Your task to perform on an android device: open device folders in google photos Image 0: 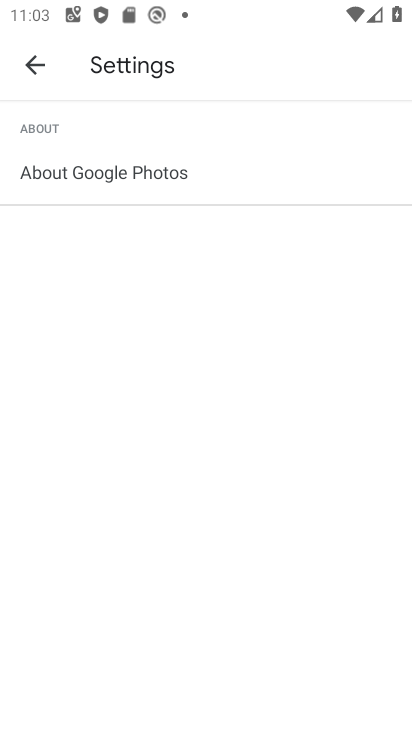
Step 0: press back button
Your task to perform on an android device: open device folders in google photos Image 1: 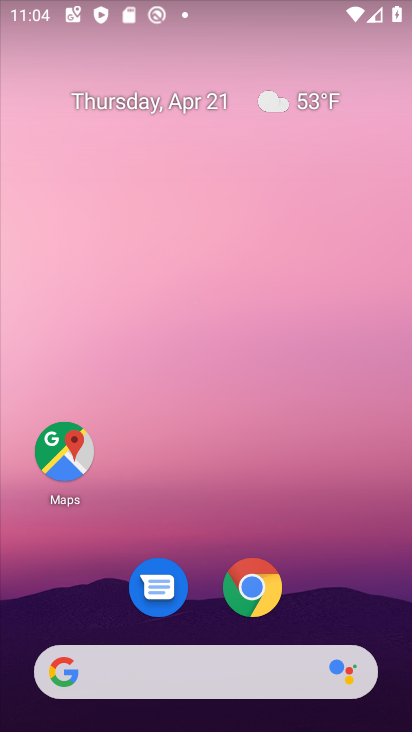
Step 1: drag from (133, 567) to (185, 72)
Your task to perform on an android device: open device folders in google photos Image 2: 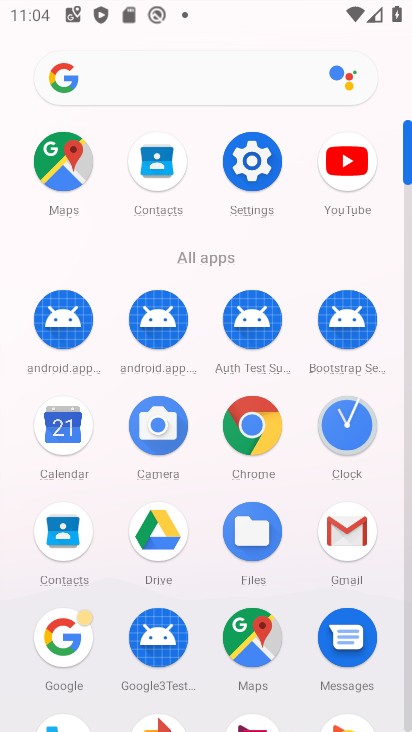
Step 2: drag from (233, 634) to (308, 163)
Your task to perform on an android device: open device folders in google photos Image 3: 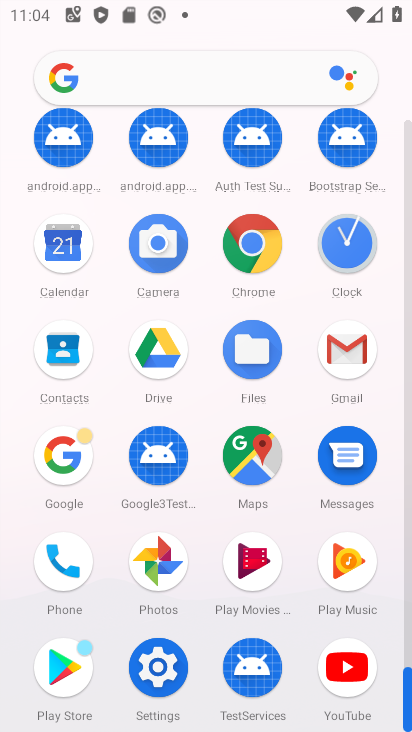
Step 3: click (157, 560)
Your task to perform on an android device: open device folders in google photos Image 4: 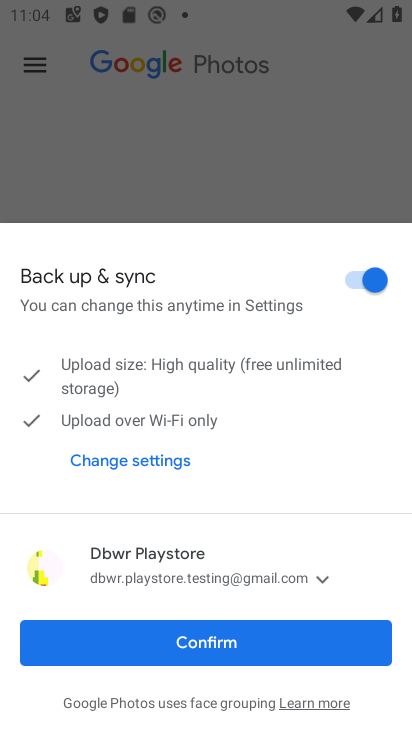
Step 4: click (25, 67)
Your task to perform on an android device: open device folders in google photos Image 5: 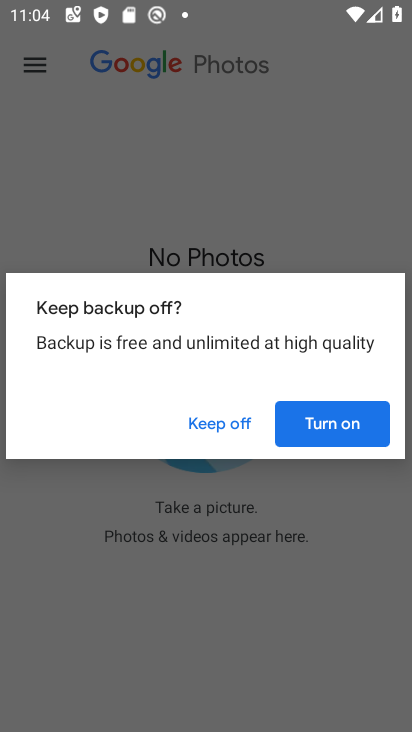
Step 5: click (230, 422)
Your task to perform on an android device: open device folders in google photos Image 6: 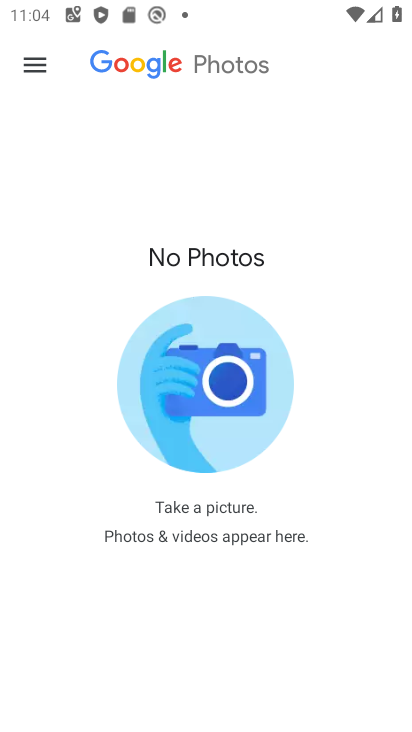
Step 6: click (31, 62)
Your task to perform on an android device: open device folders in google photos Image 7: 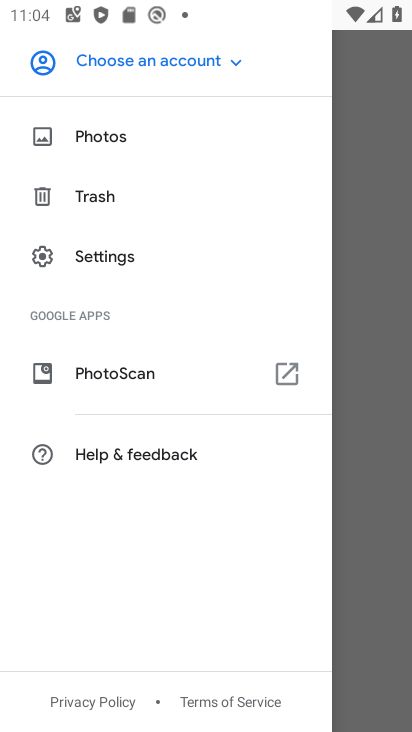
Step 7: task complete